Your task to perform on an android device: allow notifications from all sites in the chrome app Image 0: 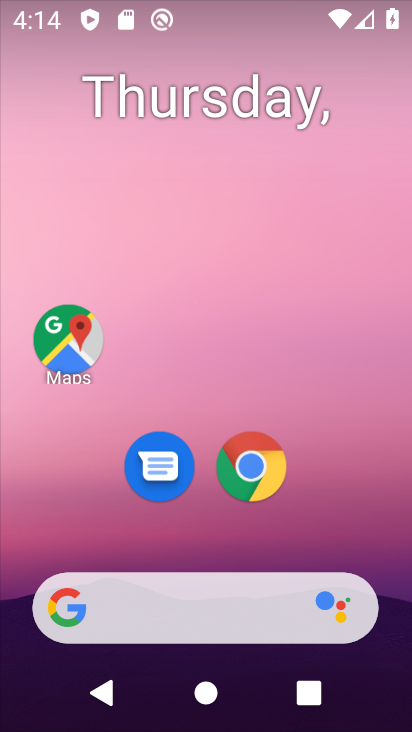
Step 0: click (249, 456)
Your task to perform on an android device: allow notifications from all sites in the chrome app Image 1: 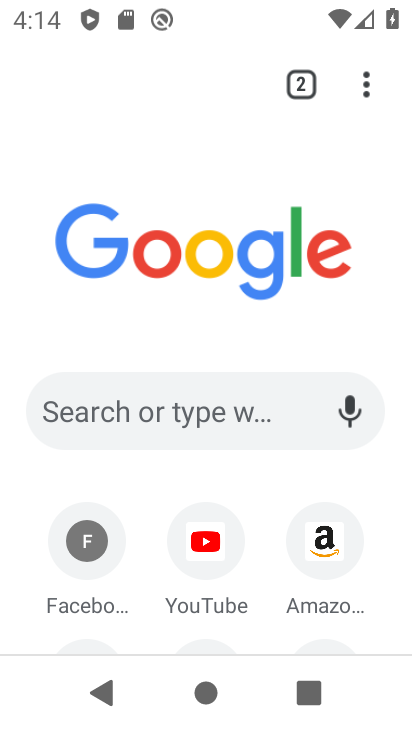
Step 1: click (364, 76)
Your task to perform on an android device: allow notifications from all sites in the chrome app Image 2: 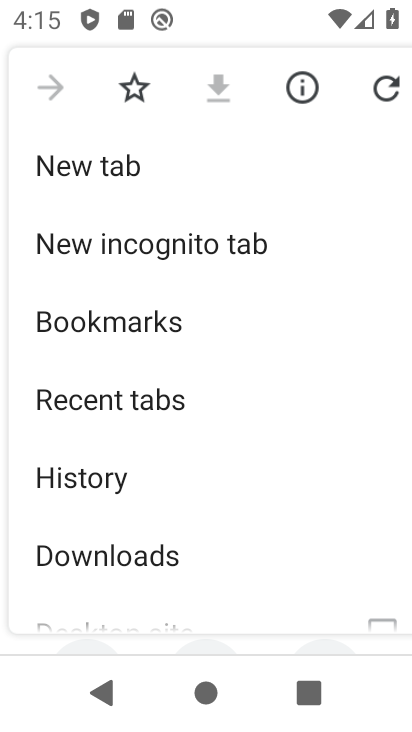
Step 2: drag from (195, 573) to (216, 181)
Your task to perform on an android device: allow notifications from all sites in the chrome app Image 3: 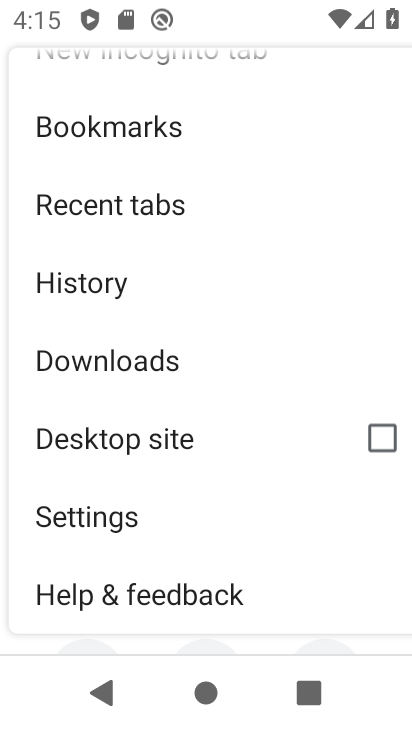
Step 3: click (151, 517)
Your task to perform on an android device: allow notifications from all sites in the chrome app Image 4: 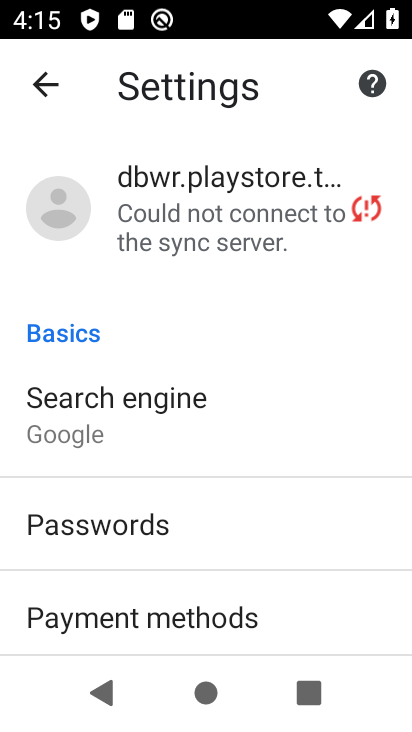
Step 4: drag from (239, 575) to (233, 162)
Your task to perform on an android device: allow notifications from all sites in the chrome app Image 5: 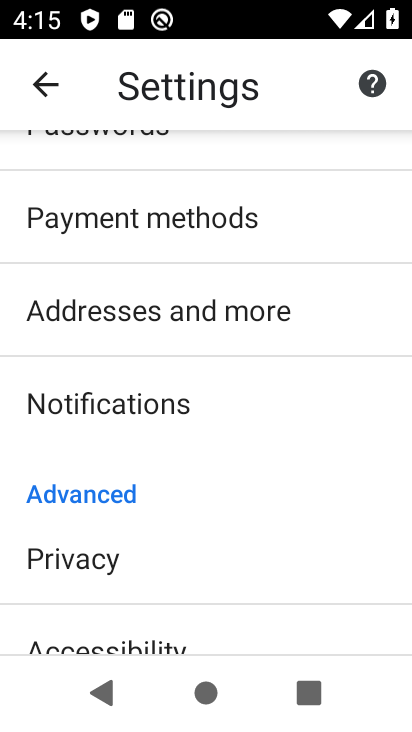
Step 5: drag from (205, 613) to (237, 182)
Your task to perform on an android device: allow notifications from all sites in the chrome app Image 6: 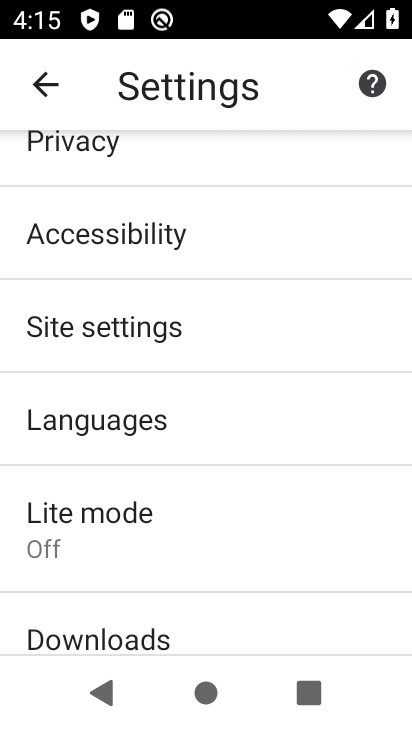
Step 6: click (207, 336)
Your task to perform on an android device: allow notifications from all sites in the chrome app Image 7: 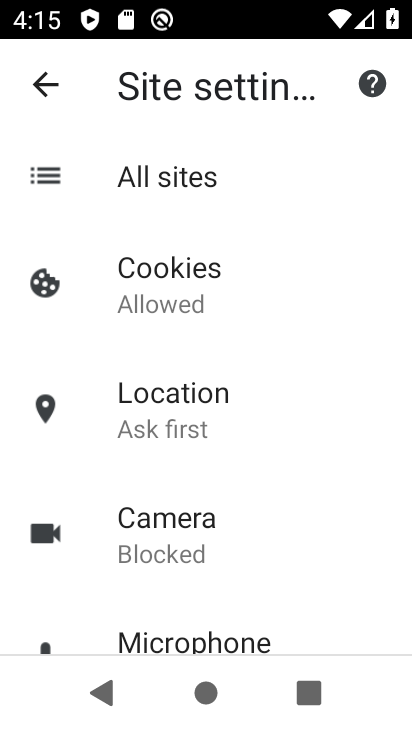
Step 7: click (224, 164)
Your task to perform on an android device: allow notifications from all sites in the chrome app Image 8: 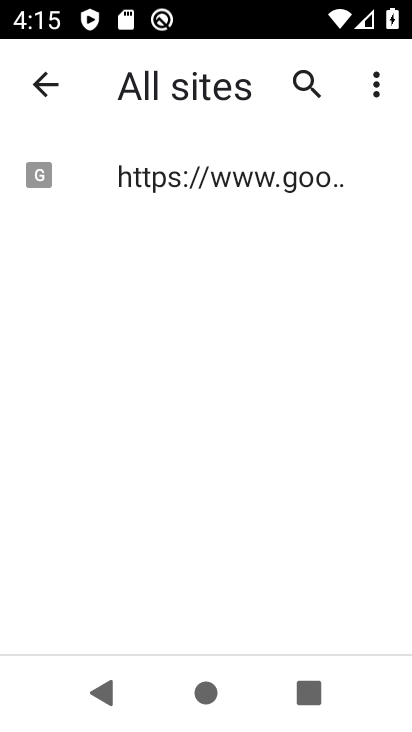
Step 8: click (85, 160)
Your task to perform on an android device: allow notifications from all sites in the chrome app Image 9: 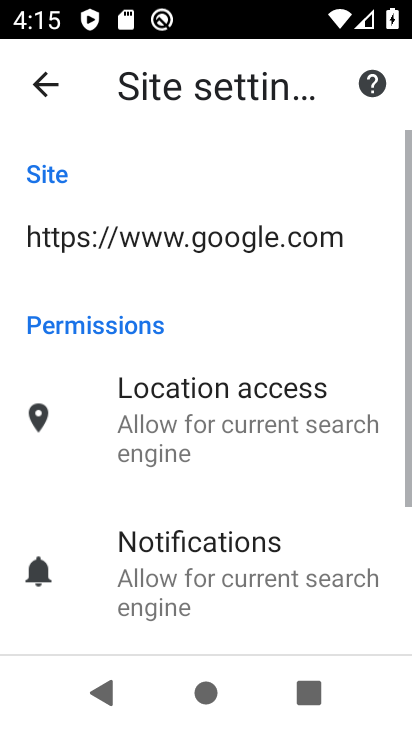
Step 9: task complete